Your task to perform on an android device: open a bookmark in the chrome app Image 0: 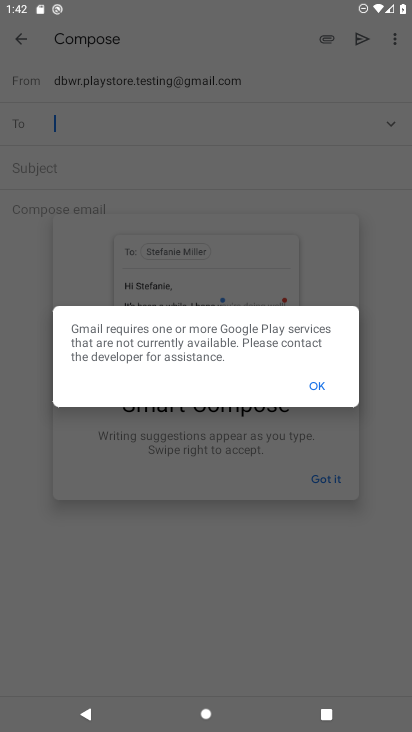
Step 0: press home button
Your task to perform on an android device: open a bookmark in the chrome app Image 1: 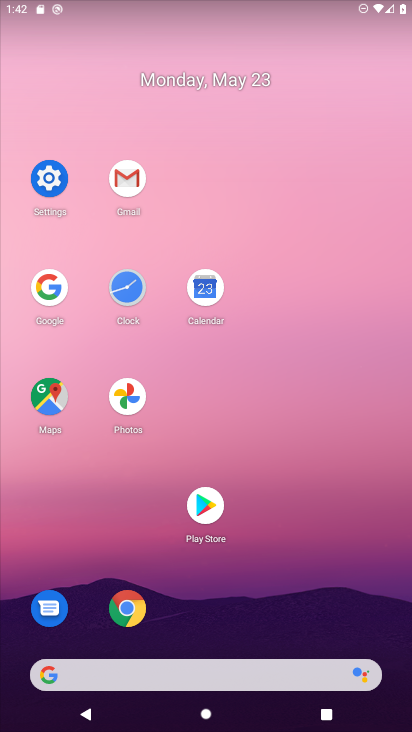
Step 1: click (139, 616)
Your task to perform on an android device: open a bookmark in the chrome app Image 2: 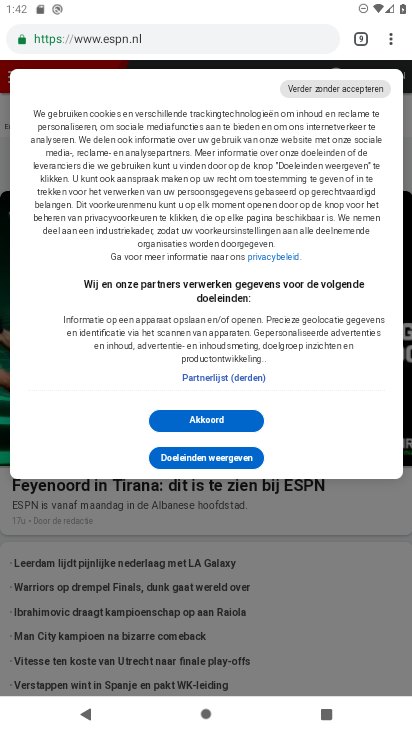
Step 2: click (398, 43)
Your task to perform on an android device: open a bookmark in the chrome app Image 3: 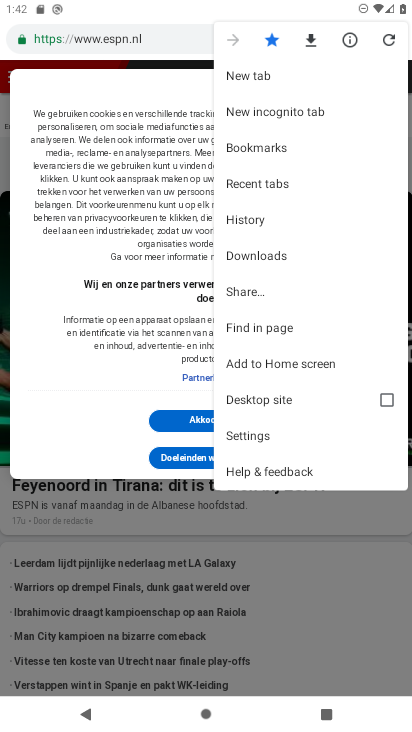
Step 3: click (288, 139)
Your task to perform on an android device: open a bookmark in the chrome app Image 4: 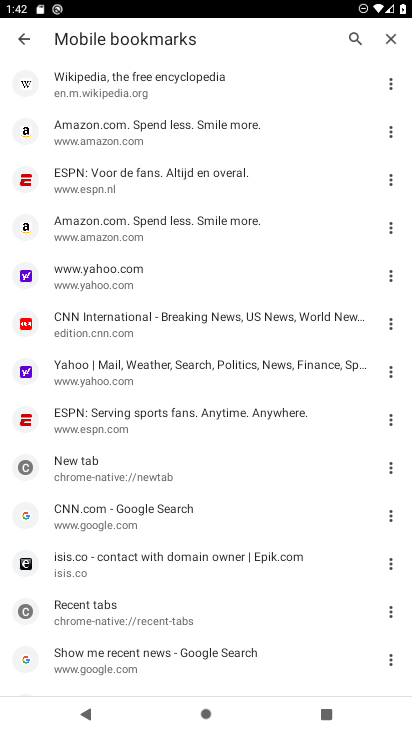
Step 4: task complete